Your task to perform on an android device: turn vacation reply on in the gmail app Image 0: 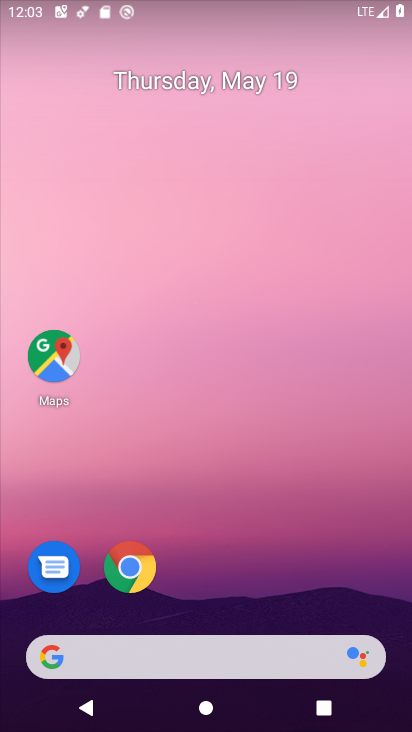
Step 0: drag from (304, 518) to (321, 56)
Your task to perform on an android device: turn vacation reply on in the gmail app Image 1: 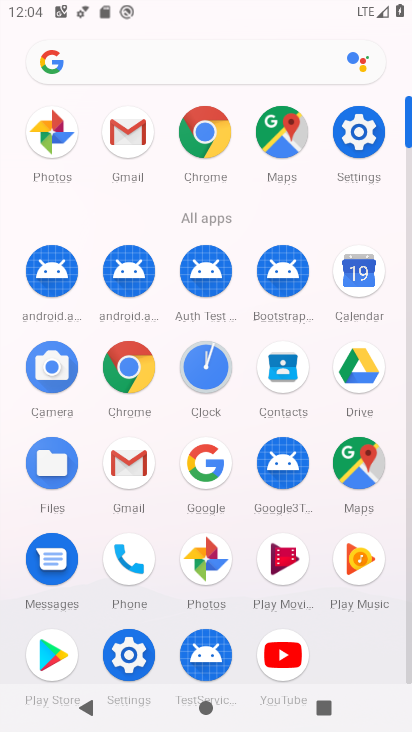
Step 1: click (130, 141)
Your task to perform on an android device: turn vacation reply on in the gmail app Image 2: 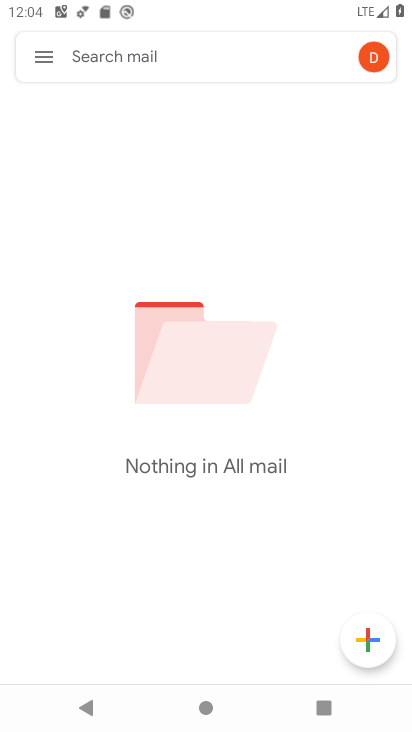
Step 2: click (33, 66)
Your task to perform on an android device: turn vacation reply on in the gmail app Image 3: 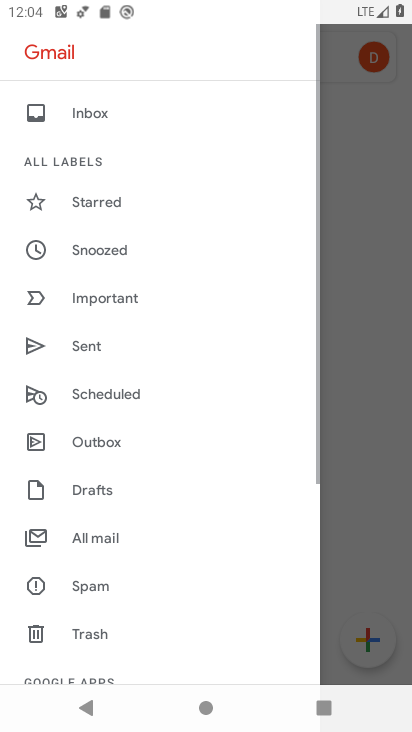
Step 3: drag from (155, 626) to (146, 186)
Your task to perform on an android device: turn vacation reply on in the gmail app Image 4: 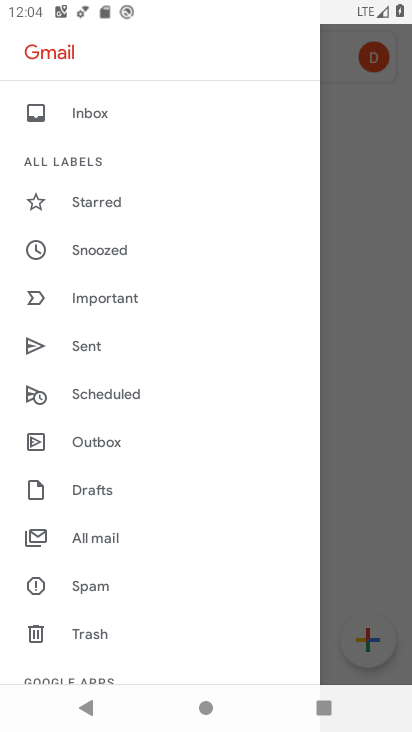
Step 4: drag from (108, 582) to (104, 190)
Your task to perform on an android device: turn vacation reply on in the gmail app Image 5: 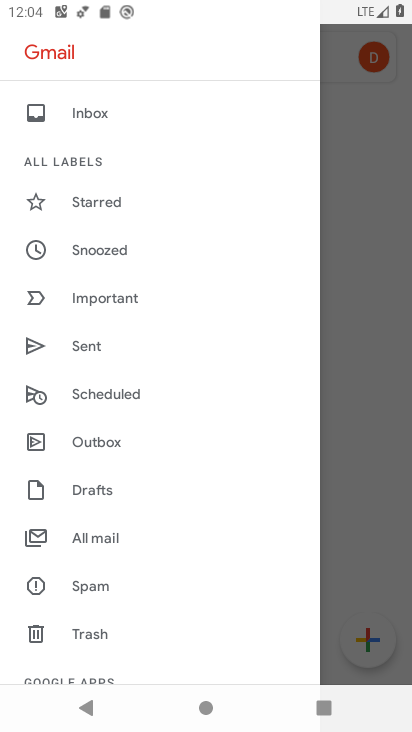
Step 5: drag from (101, 620) to (209, 254)
Your task to perform on an android device: turn vacation reply on in the gmail app Image 6: 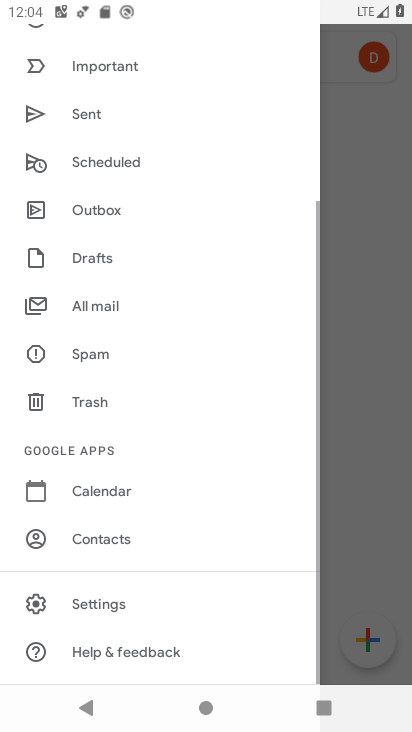
Step 6: click (89, 604)
Your task to perform on an android device: turn vacation reply on in the gmail app Image 7: 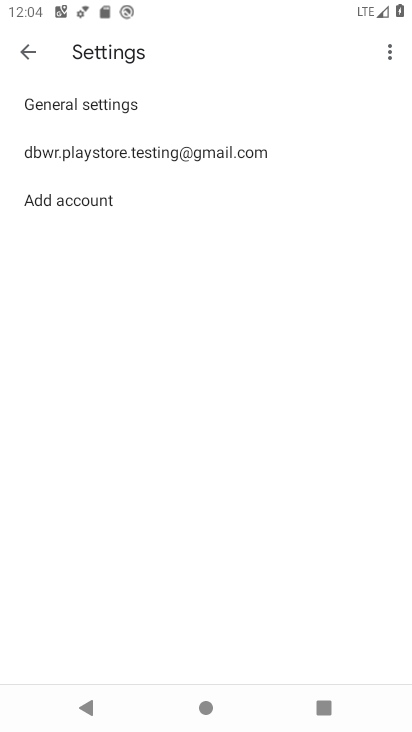
Step 7: click (81, 152)
Your task to perform on an android device: turn vacation reply on in the gmail app Image 8: 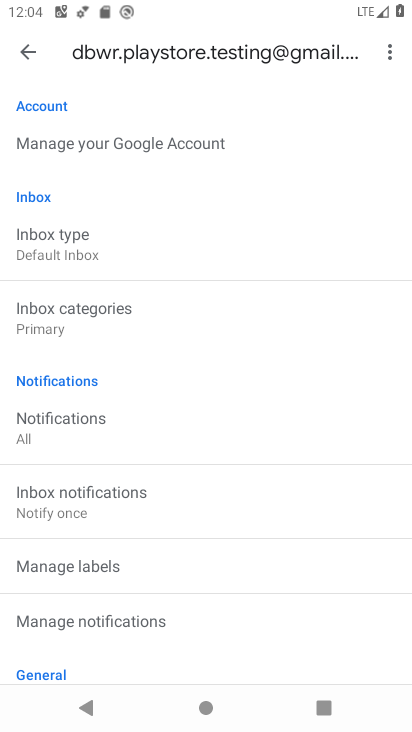
Step 8: drag from (102, 628) to (200, 137)
Your task to perform on an android device: turn vacation reply on in the gmail app Image 9: 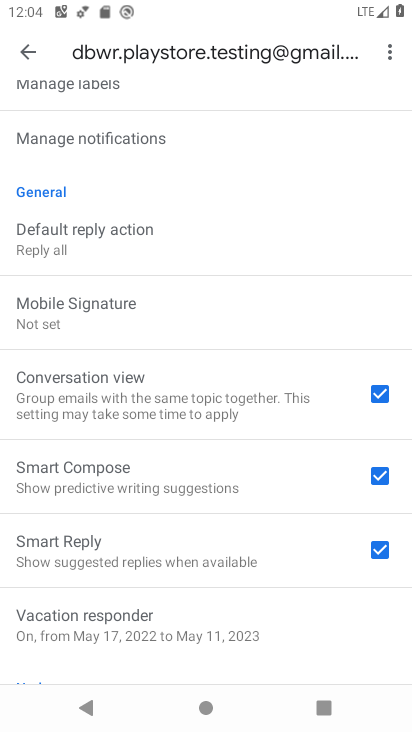
Step 9: drag from (143, 584) to (148, 196)
Your task to perform on an android device: turn vacation reply on in the gmail app Image 10: 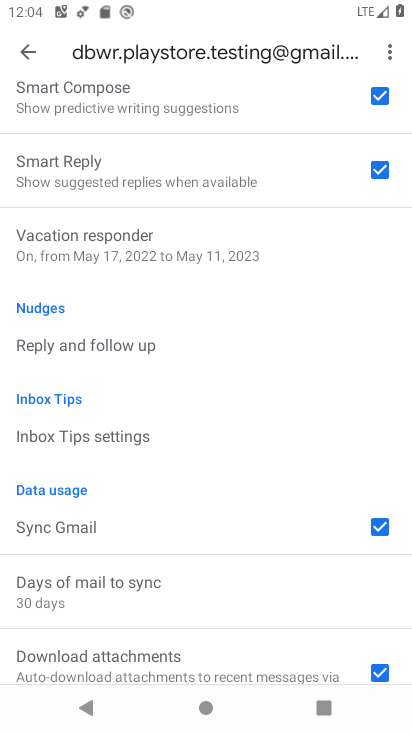
Step 10: click (133, 226)
Your task to perform on an android device: turn vacation reply on in the gmail app Image 11: 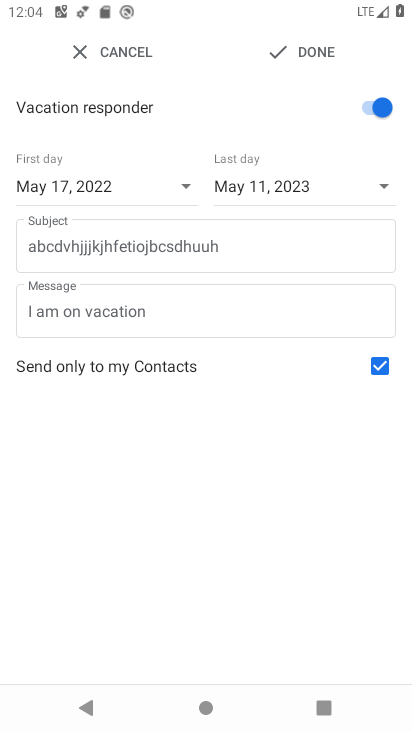
Step 11: task complete